Your task to perform on an android device: turn off location Image 0: 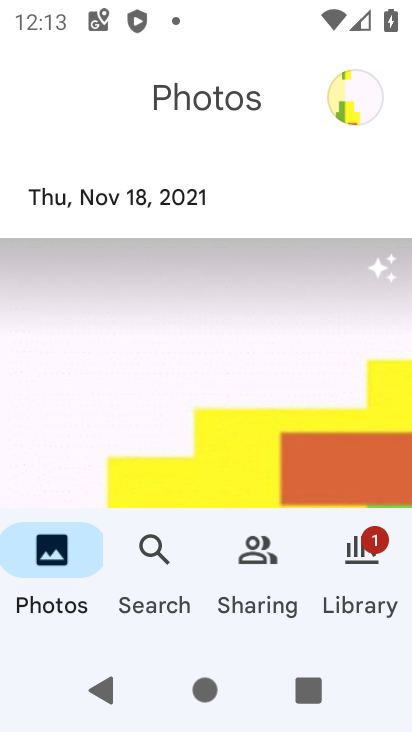
Step 0: press home button
Your task to perform on an android device: turn off location Image 1: 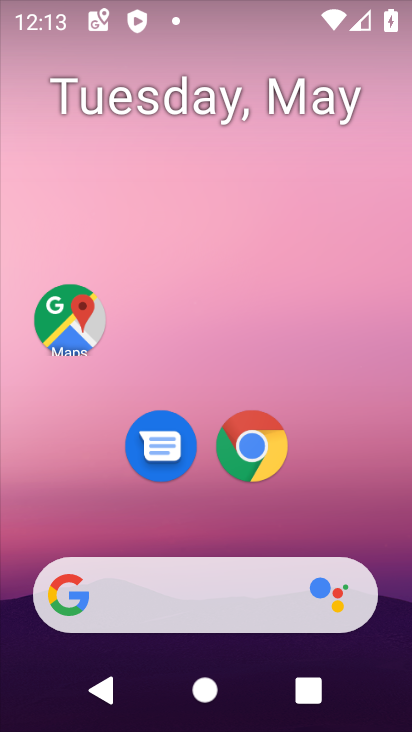
Step 1: drag from (341, 504) to (280, 6)
Your task to perform on an android device: turn off location Image 2: 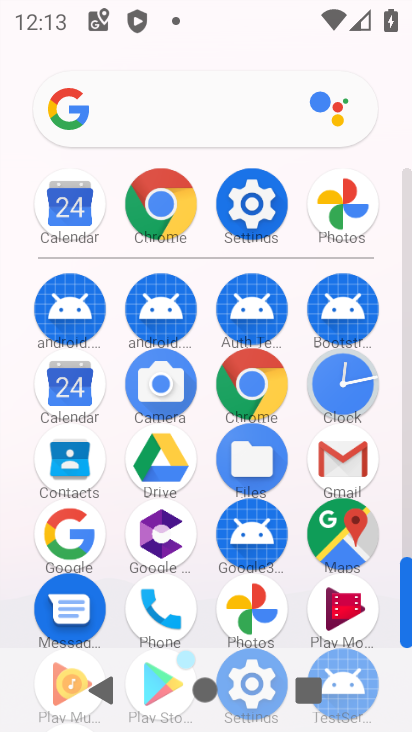
Step 2: click (257, 217)
Your task to perform on an android device: turn off location Image 3: 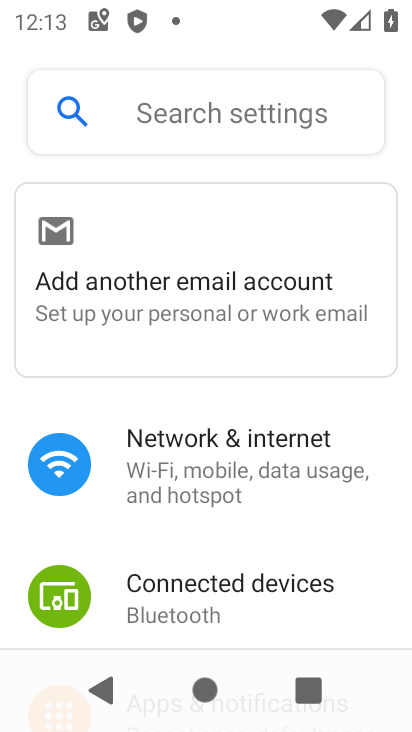
Step 3: drag from (192, 529) to (242, 83)
Your task to perform on an android device: turn off location Image 4: 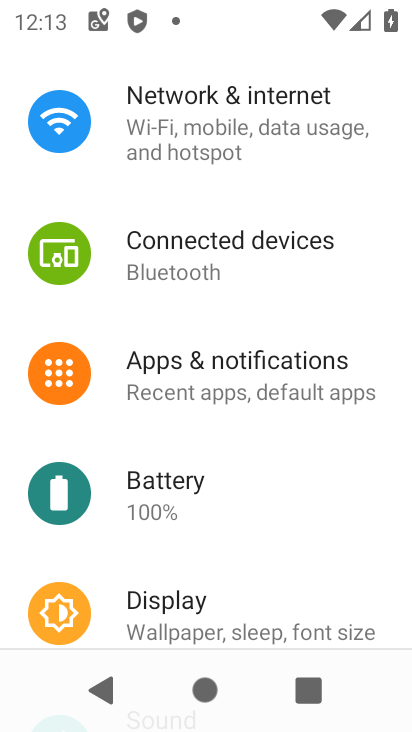
Step 4: drag from (222, 576) to (248, 267)
Your task to perform on an android device: turn off location Image 5: 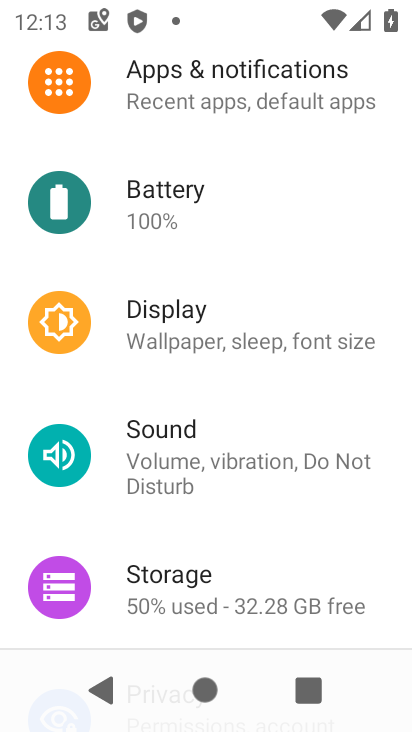
Step 5: drag from (245, 521) to (247, 342)
Your task to perform on an android device: turn off location Image 6: 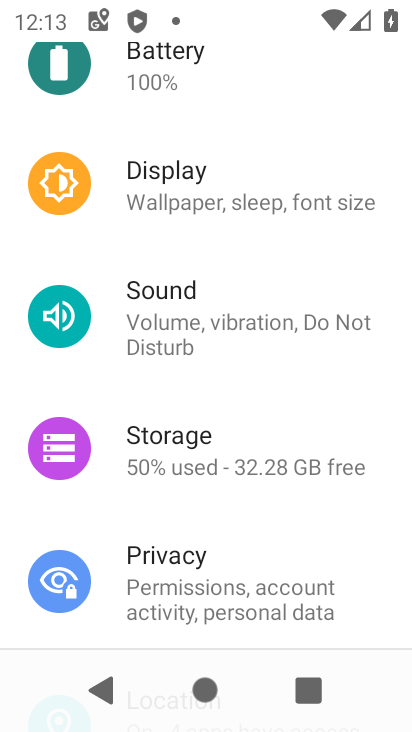
Step 6: drag from (226, 493) to (249, 131)
Your task to perform on an android device: turn off location Image 7: 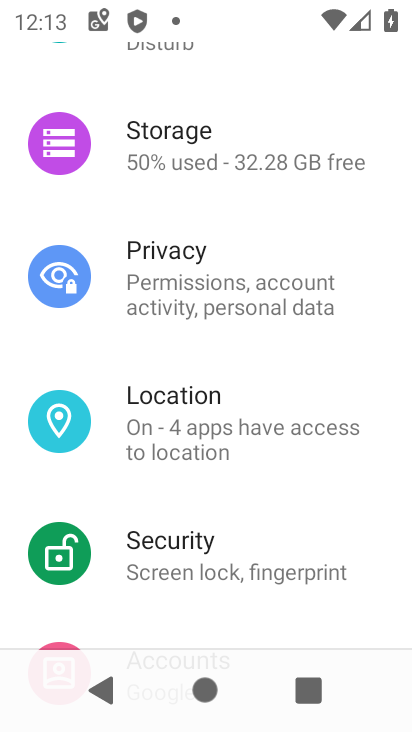
Step 7: click (173, 421)
Your task to perform on an android device: turn off location Image 8: 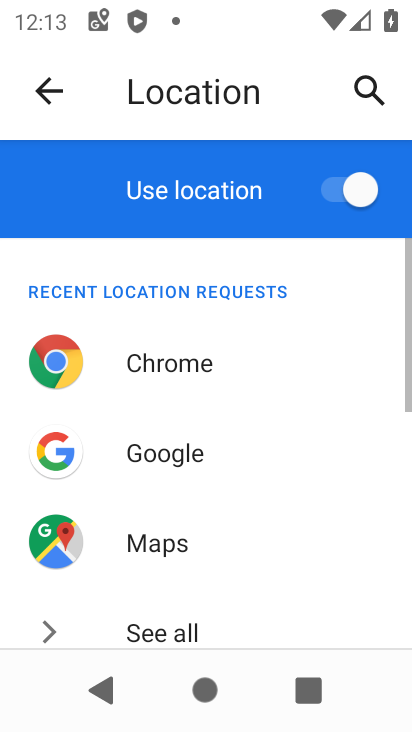
Step 8: click (326, 210)
Your task to perform on an android device: turn off location Image 9: 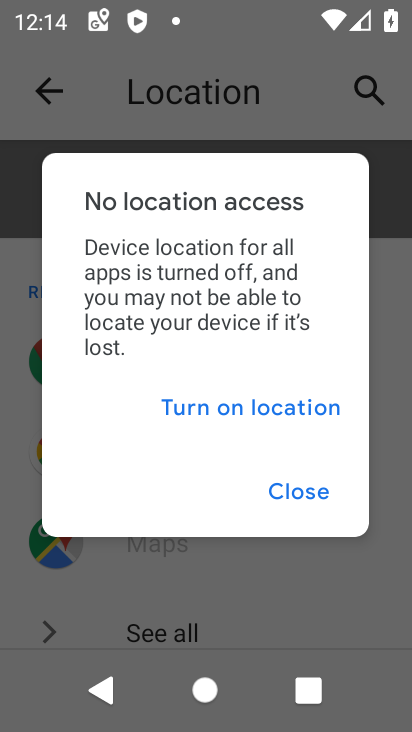
Step 9: click (298, 490)
Your task to perform on an android device: turn off location Image 10: 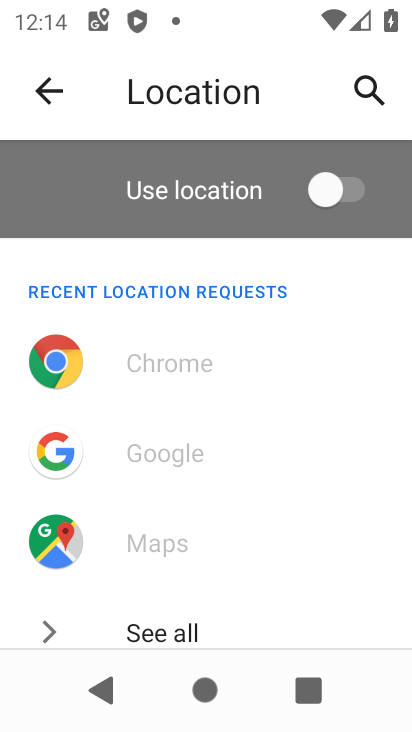
Step 10: task complete